Your task to perform on an android device: turn off location Image 0: 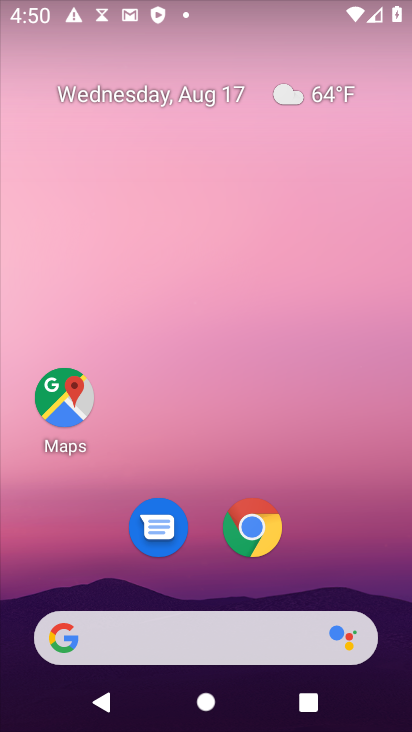
Step 0: drag from (236, 521) to (199, 113)
Your task to perform on an android device: turn off location Image 1: 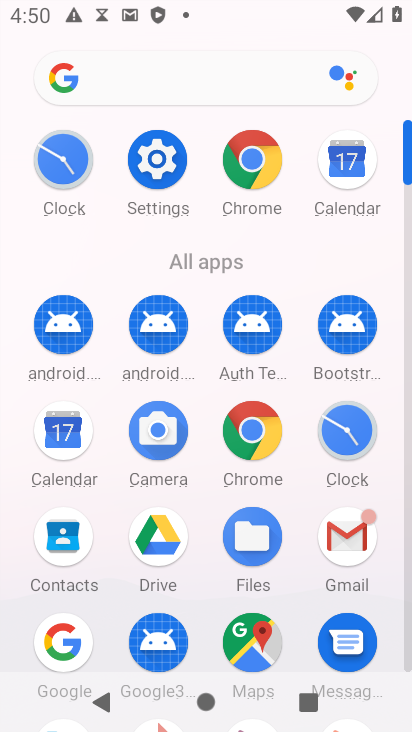
Step 1: click (148, 158)
Your task to perform on an android device: turn off location Image 2: 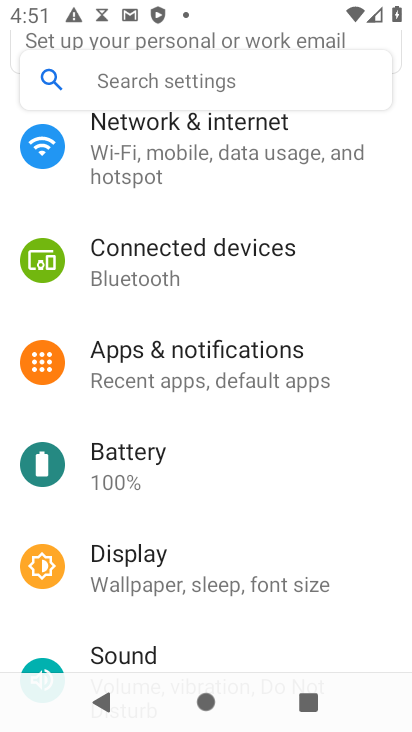
Step 2: drag from (139, 617) to (134, 318)
Your task to perform on an android device: turn off location Image 3: 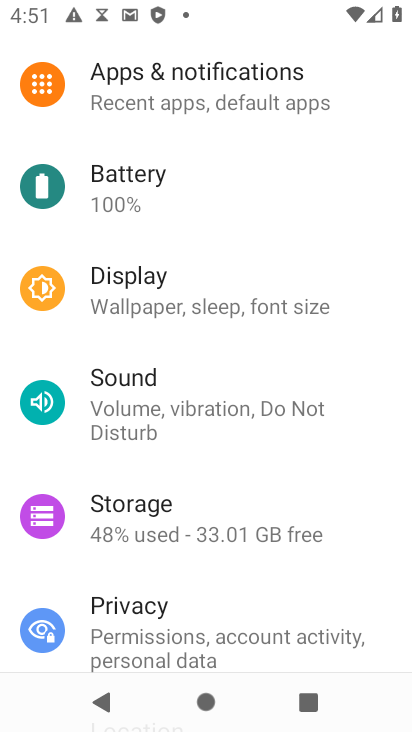
Step 3: drag from (143, 636) to (112, 279)
Your task to perform on an android device: turn off location Image 4: 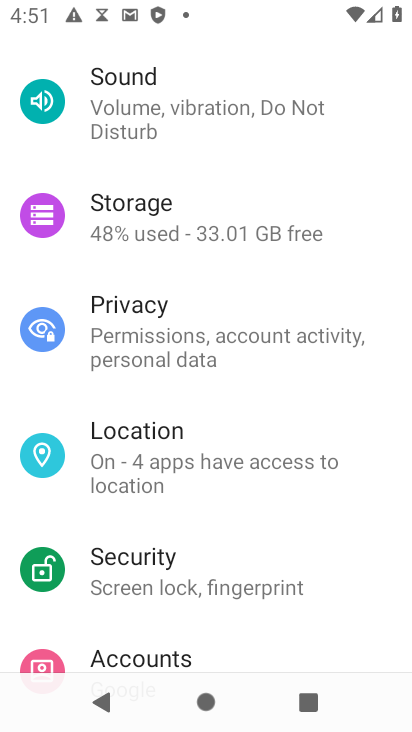
Step 4: click (108, 461)
Your task to perform on an android device: turn off location Image 5: 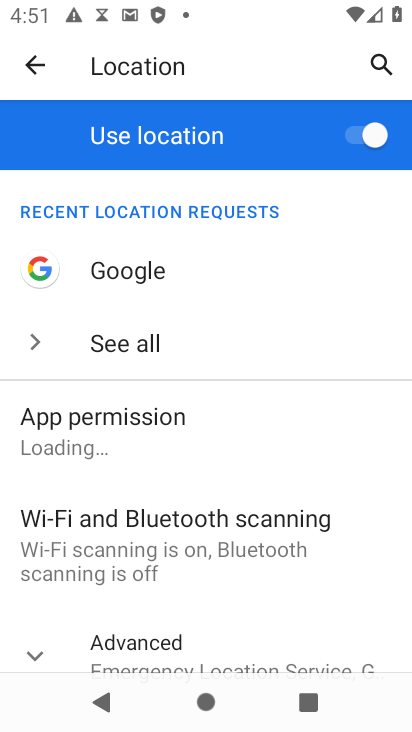
Step 5: drag from (133, 651) to (130, 313)
Your task to perform on an android device: turn off location Image 6: 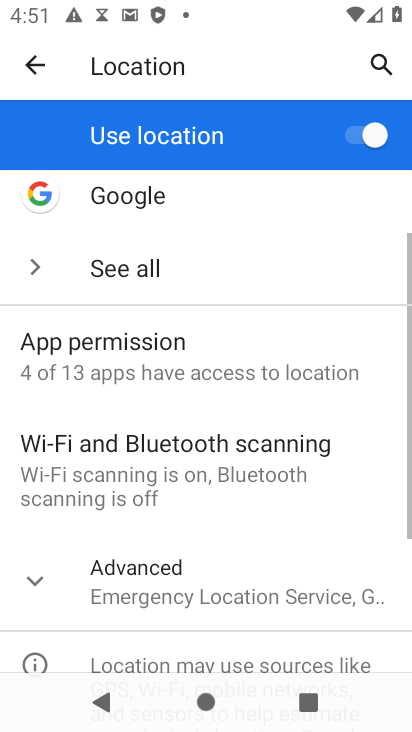
Step 6: click (127, 577)
Your task to perform on an android device: turn off location Image 7: 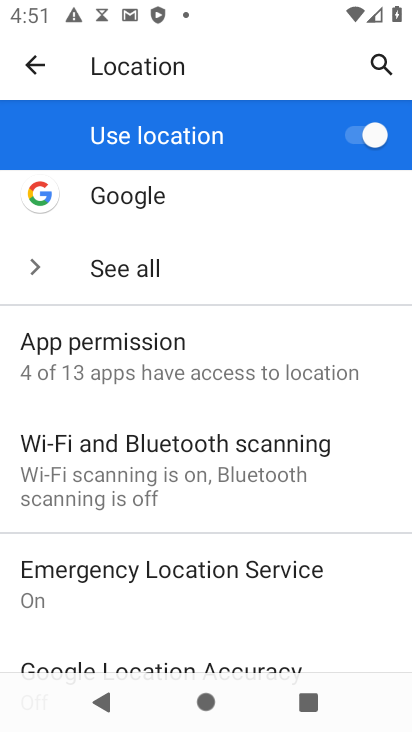
Step 7: drag from (158, 607) to (116, 311)
Your task to perform on an android device: turn off location Image 8: 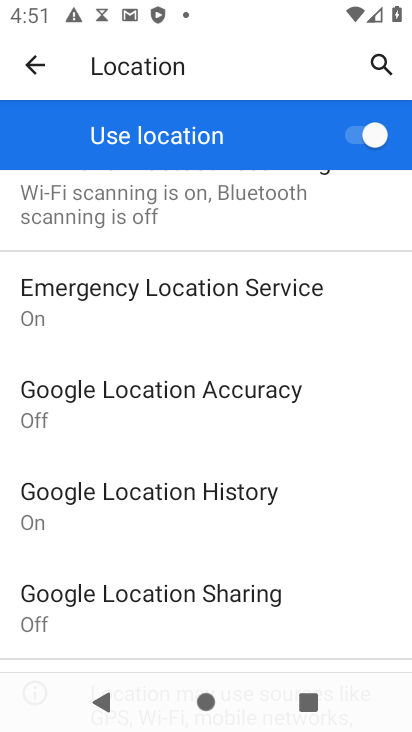
Step 8: click (350, 146)
Your task to perform on an android device: turn off location Image 9: 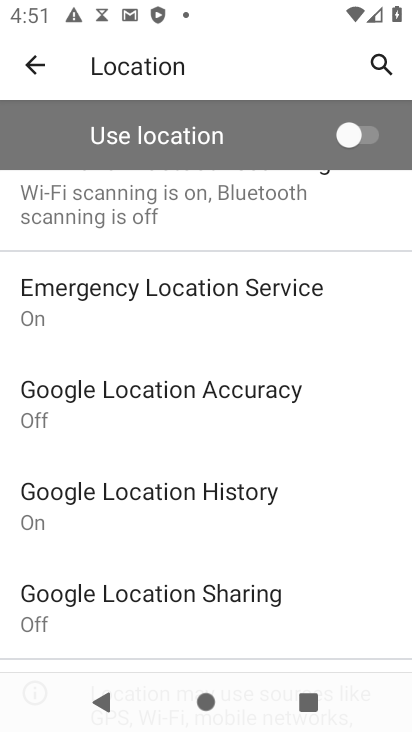
Step 9: task complete